Your task to perform on an android device: When is my next meeting? Image 0: 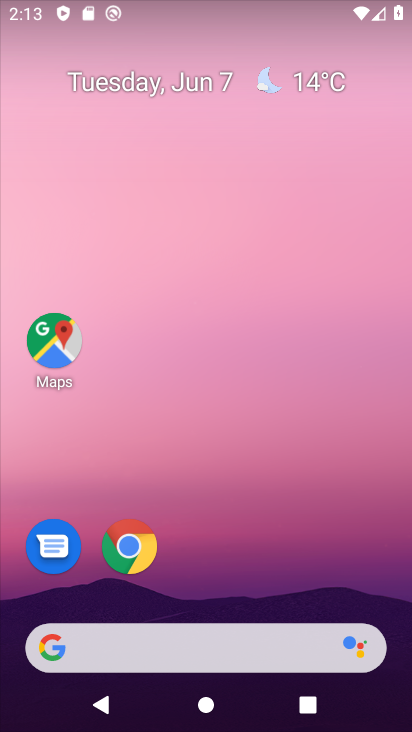
Step 0: drag from (259, 275) to (207, 73)
Your task to perform on an android device: When is my next meeting? Image 1: 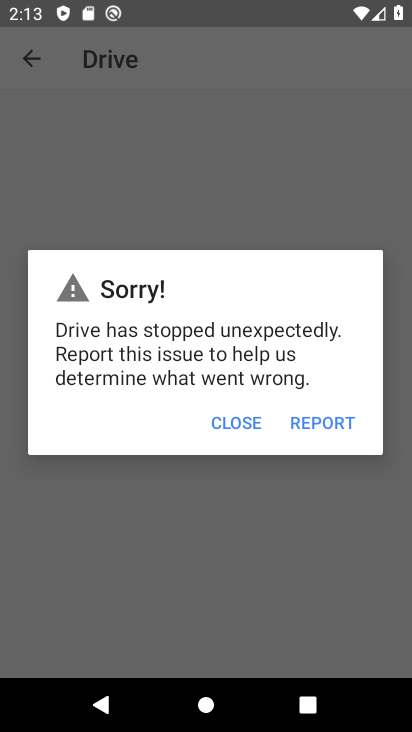
Step 1: press home button
Your task to perform on an android device: When is my next meeting? Image 2: 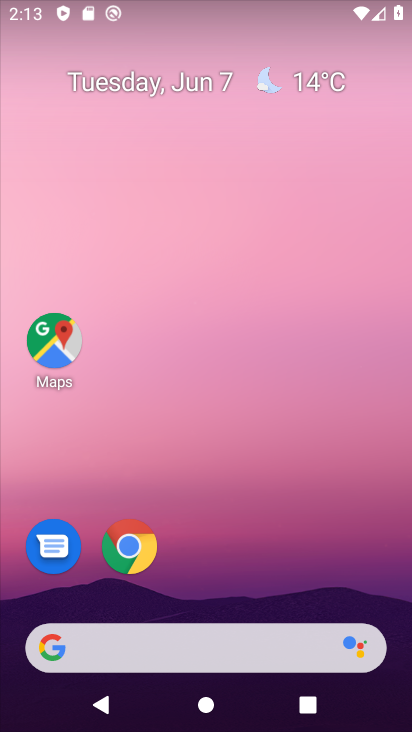
Step 2: click (115, 71)
Your task to perform on an android device: When is my next meeting? Image 3: 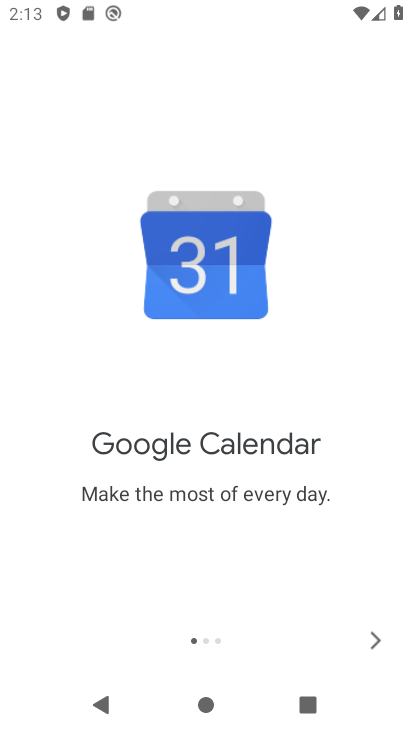
Step 3: click (376, 629)
Your task to perform on an android device: When is my next meeting? Image 4: 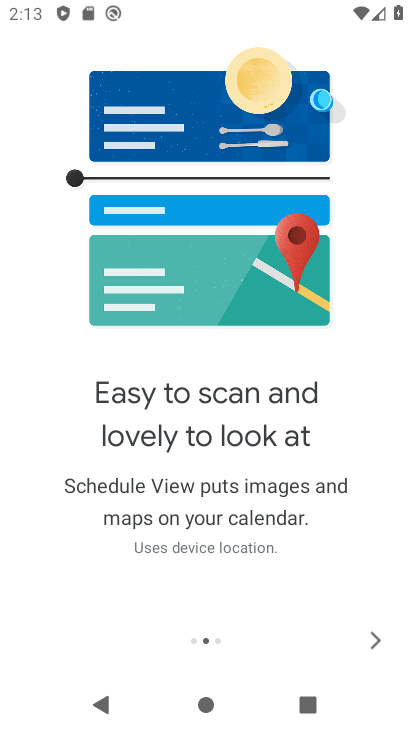
Step 4: click (376, 629)
Your task to perform on an android device: When is my next meeting? Image 5: 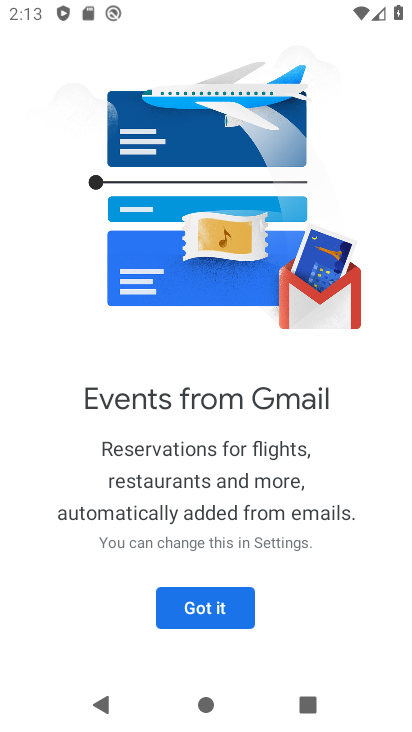
Step 5: click (209, 618)
Your task to perform on an android device: When is my next meeting? Image 6: 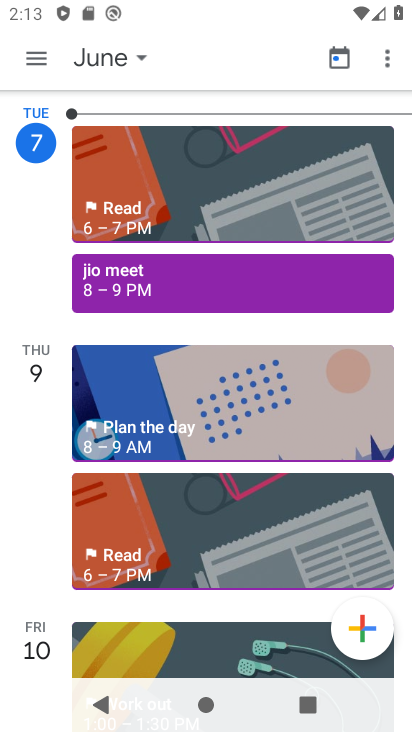
Step 6: task complete